Your task to perform on an android device: Search for vegetarian restaurants on Maps Image 0: 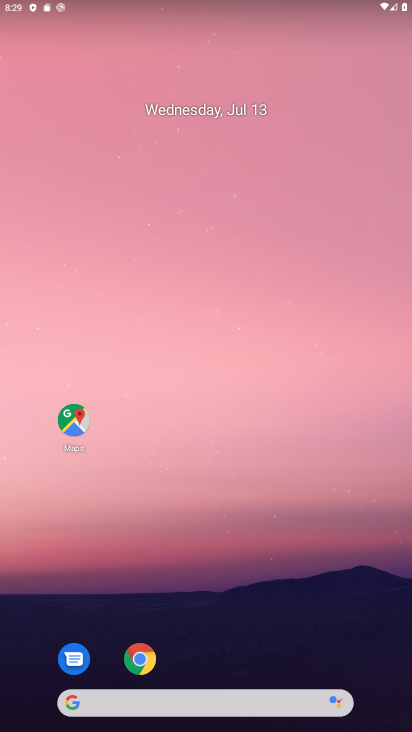
Step 0: press home button
Your task to perform on an android device: Search for vegetarian restaurants on Maps Image 1: 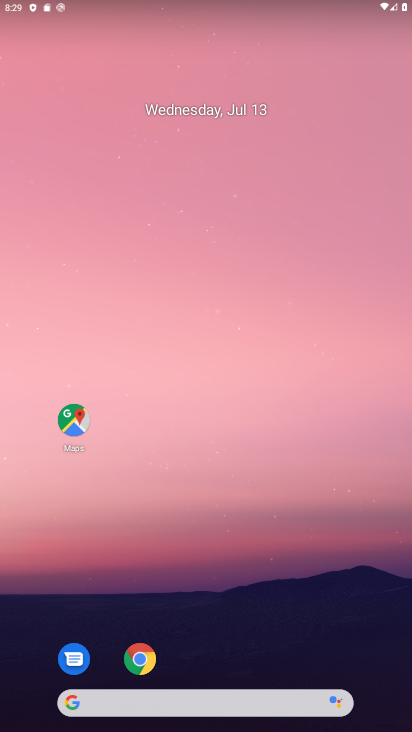
Step 1: click (80, 421)
Your task to perform on an android device: Search for vegetarian restaurants on Maps Image 2: 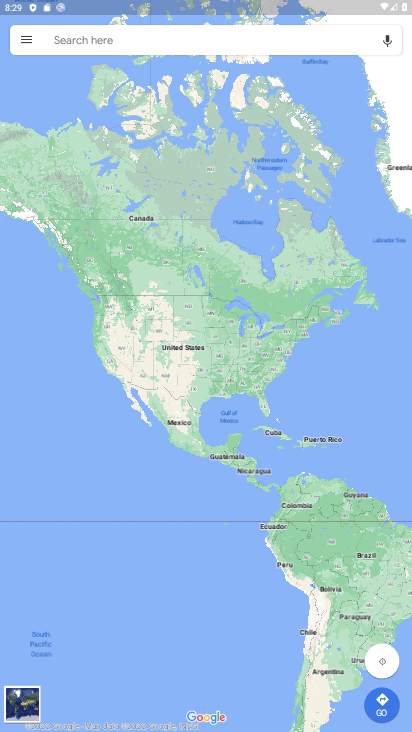
Step 2: click (130, 48)
Your task to perform on an android device: Search for vegetarian restaurants on Maps Image 3: 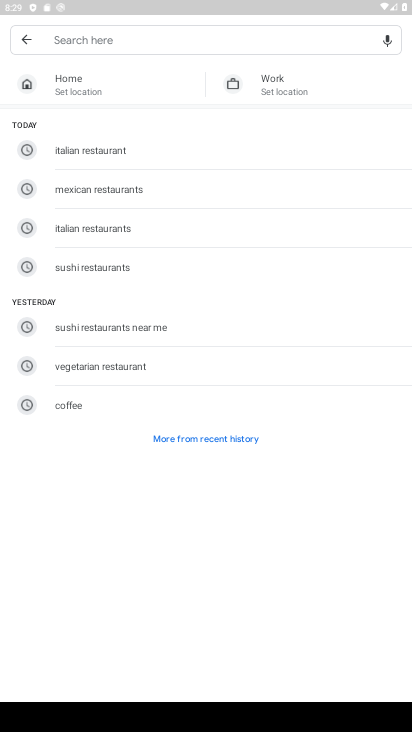
Step 3: type "vegetarian restaurants"
Your task to perform on an android device: Search for vegetarian restaurants on Maps Image 4: 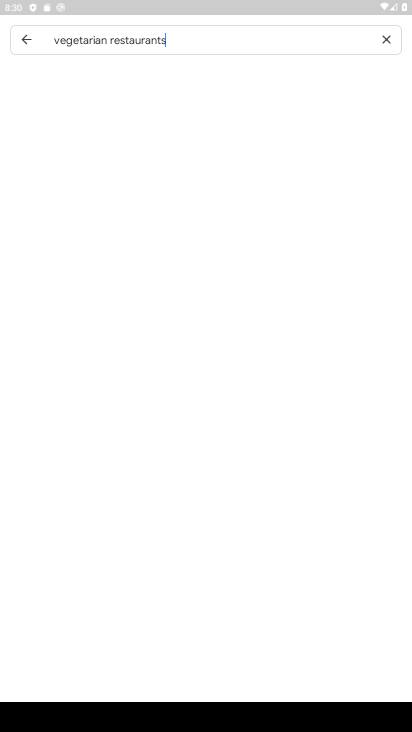
Step 4: type ""
Your task to perform on an android device: Search for vegetarian restaurants on Maps Image 5: 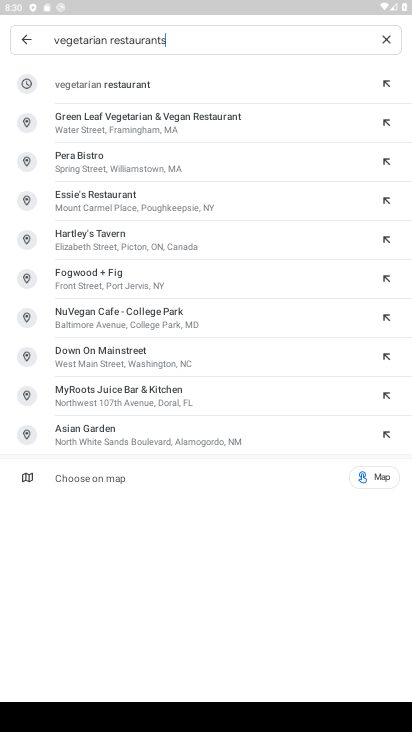
Step 5: click (148, 82)
Your task to perform on an android device: Search for vegetarian restaurants on Maps Image 6: 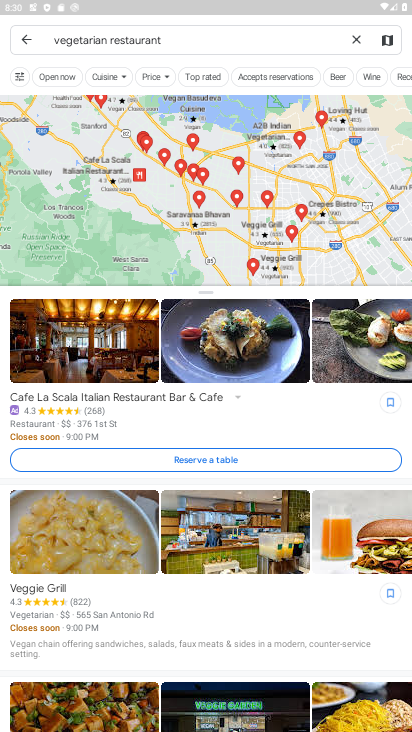
Step 6: task complete